Your task to perform on an android device: turn on priority inbox in the gmail app Image 0: 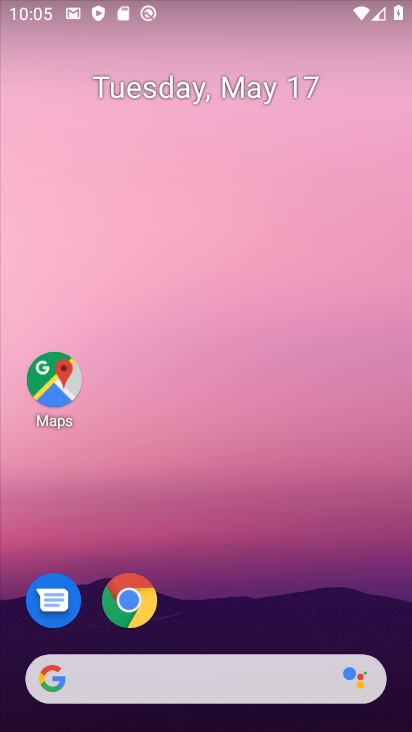
Step 0: drag from (348, 609) to (347, 246)
Your task to perform on an android device: turn on priority inbox in the gmail app Image 1: 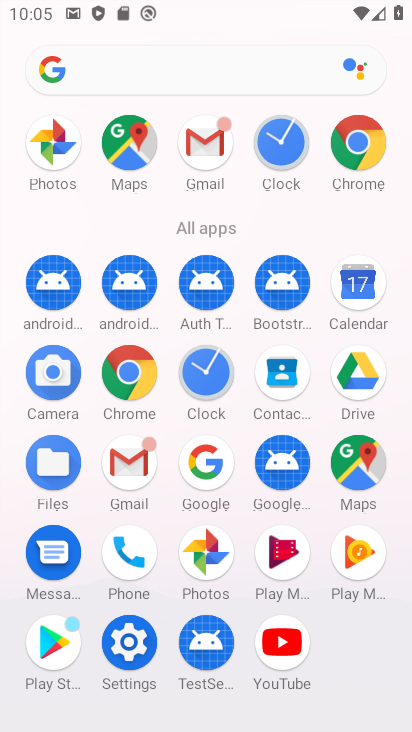
Step 1: click (139, 463)
Your task to perform on an android device: turn on priority inbox in the gmail app Image 2: 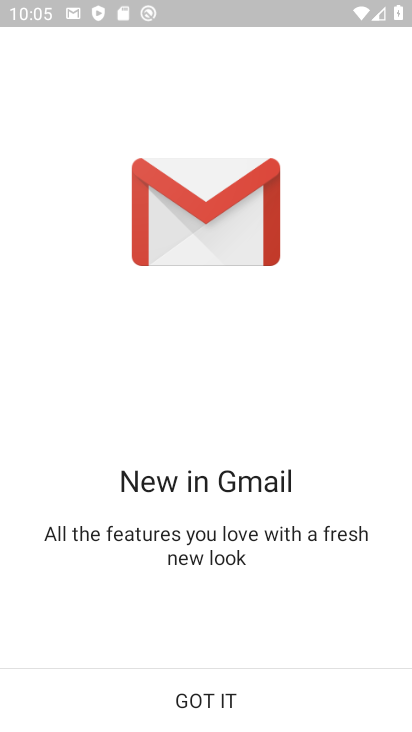
Step 2: click (213, 711)
Your task to perform on an android device: turn on priority inbox in the gmail app Image 3: 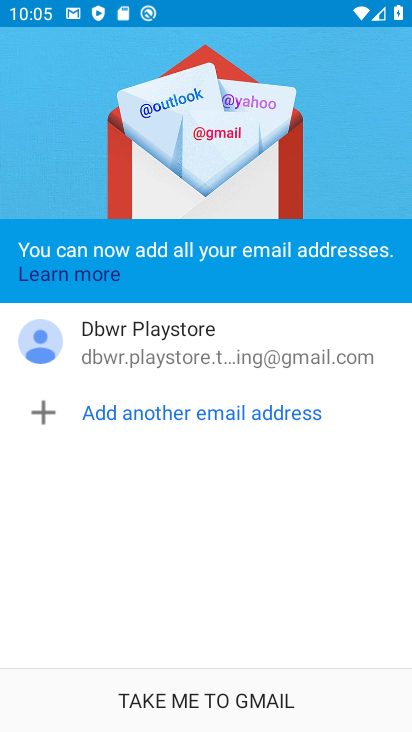
Step 3: click (213, 711)
Your task to perform on an android device: turn on priority inbox in the gmail app Image 4: 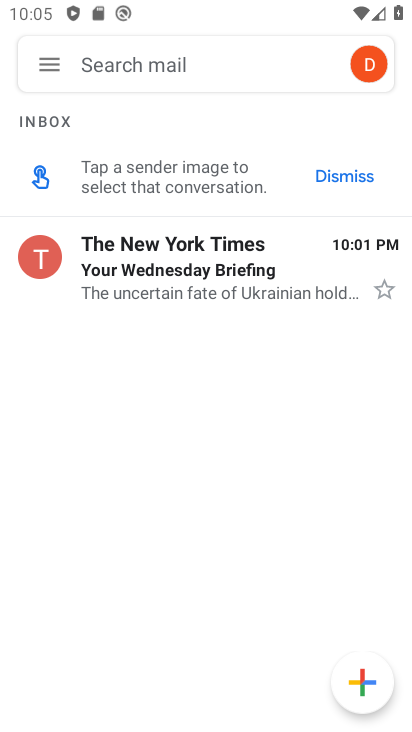
Step 4: click (48, 67)
Your task to perform on an android device: turn on priority inbox in the gmail app Image 5: 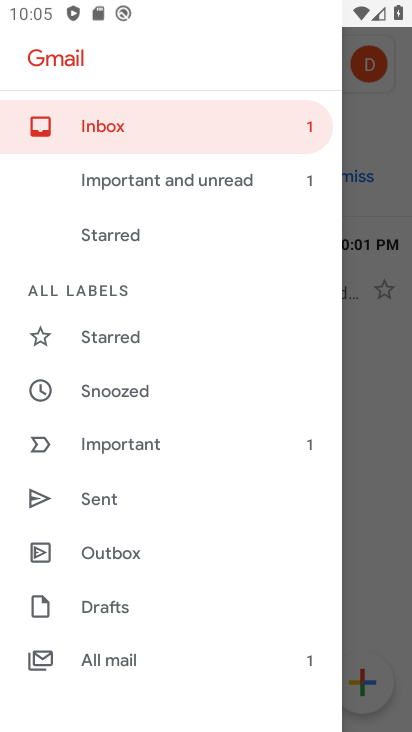
Step 5: drag from (239, 573) to (225, 429)
Your task to perform on an android device: turn on priority inbox in the gmail app Image 6: 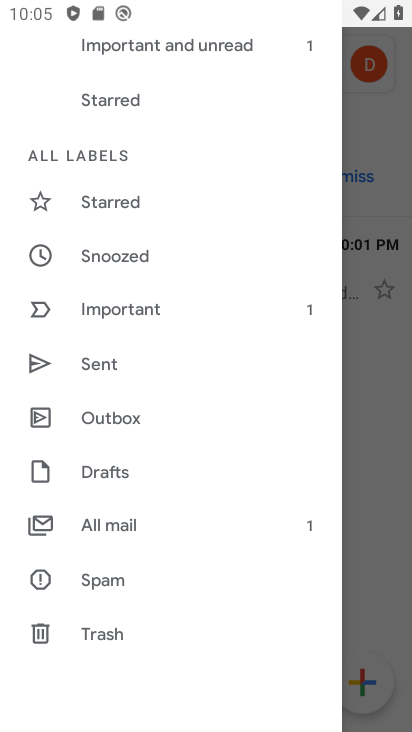
Step 6: drag from (223, 577) to (221, 420)
Your task to perform on an android device: turn on priority inbox in the gmail app Image 7: 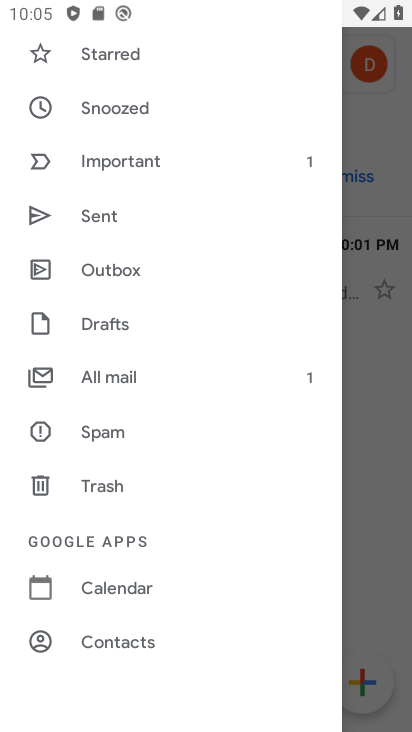
Step 7: drag from (233, 595) to (236, 490)
Your task to perform on an android device: turn on priority inbox in the gmail app Image 8: 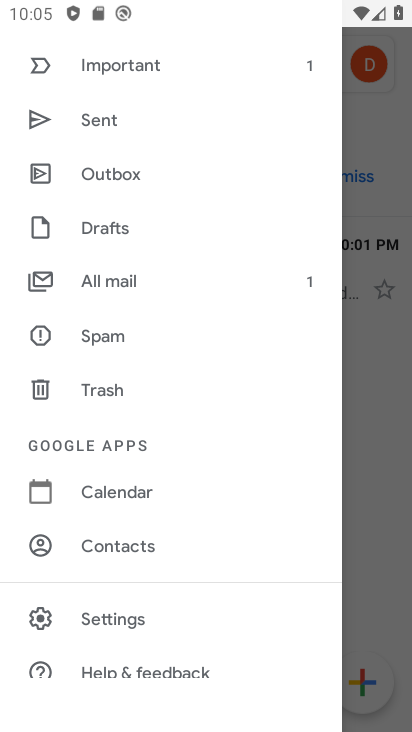
Step 8: drag from (230, 625) to (231, 508)
Your task to perform on an android device: turn on priority inbox in the gmail app Image 9: 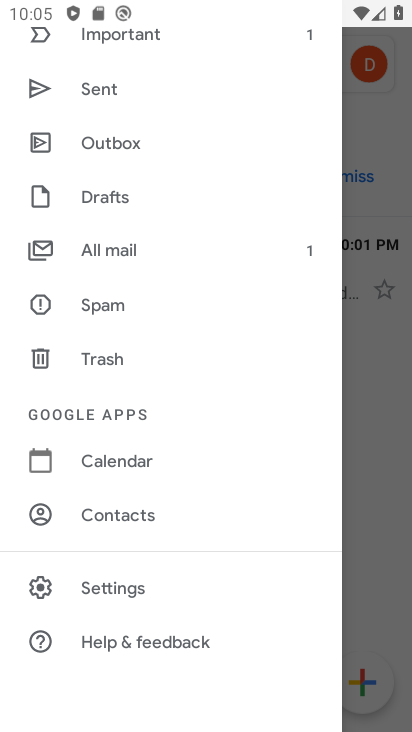
Step 9: click (192, 582)
Your task to perform on an android device: turn on priority inbox in the gmail app Image 10: 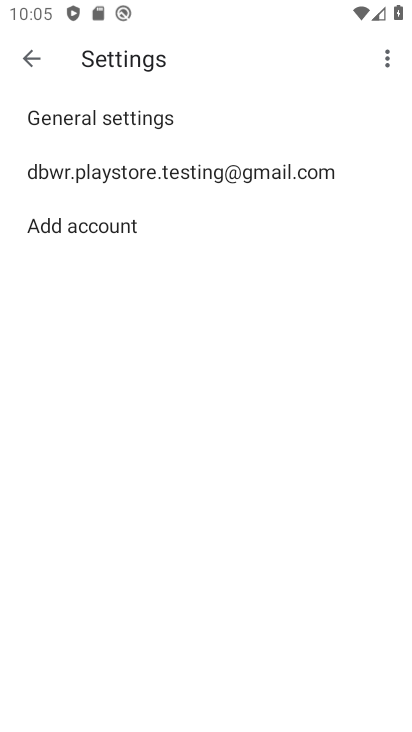
Step 10: click (266, 188)
Your task to perform on an android device: turn on priority inbox in the gmail app Image 11: 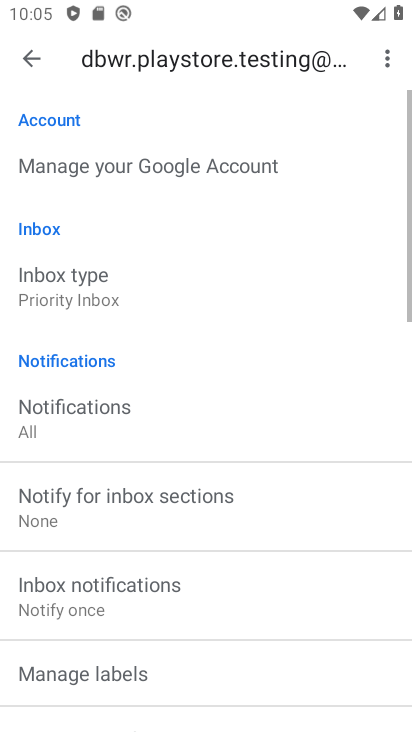
Step 11: drag from (299, 607) to (308, 505)
Your task to perform on an android device: turn on priority inbox in the gmail app Image 12: 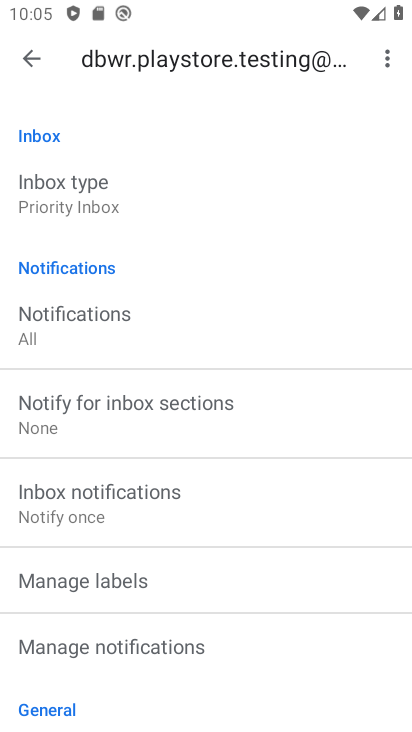
Step 12: drag from (308, 639) to (307, 546)
Your task to perform on an android device: turn on priority inbox in the gmail app Image 13: 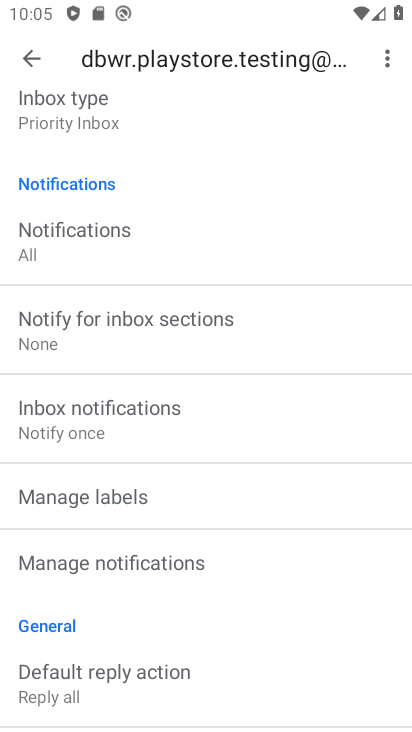
Step 13: drag from (304, 638) to (302, 565)
Your task to perform on an android device: turn on priority inbox in the gmail app Image 14: 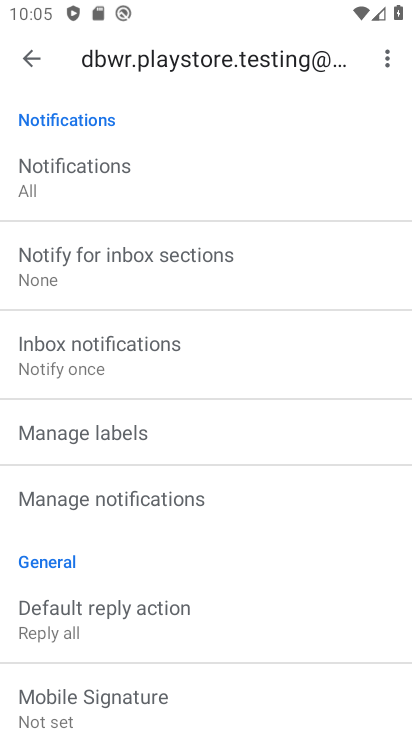
Step 14: drag from (293, 637) to (292, 592)
Your task to perform on an android device: turn on priority inbox in the gmail app Image 15: 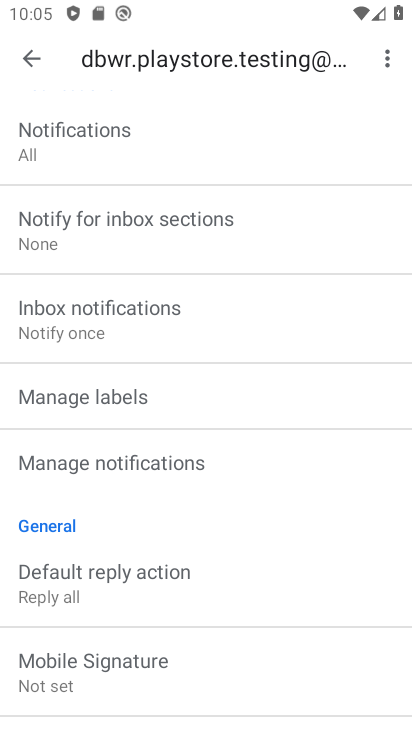
Step 15: drag from (288, 612) to (283, 544)
Your task to perform on an android device: turn on priority inbox in the gmail app Image 16: 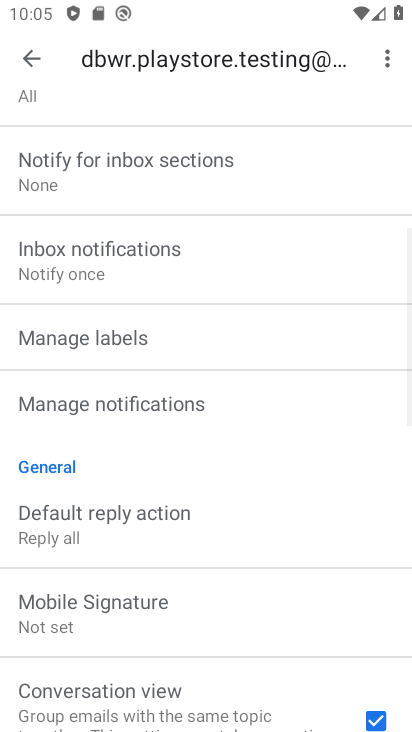
Step 16: drag from (290, 625) to (291, 554)
Your task to perform on an android device: turn on priority inbox in the gmail app Image 17: 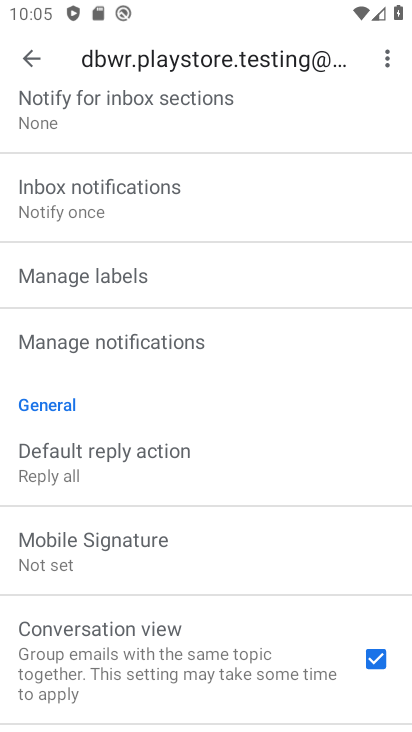
Step 17: drag from (289, 596) to (286, 541)
Your task to perform on an android device: turn on priority inbox in the gmail app Image 18: 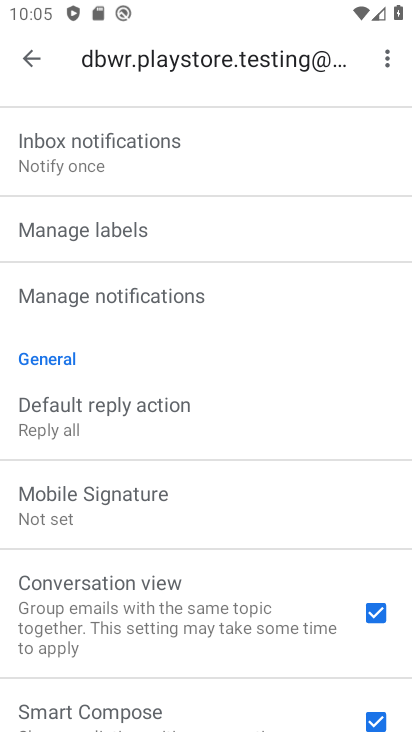
Step 18: click (284, 559)
Your task to perform on an android device: turn on priority inbox in the gmail app Image 19: 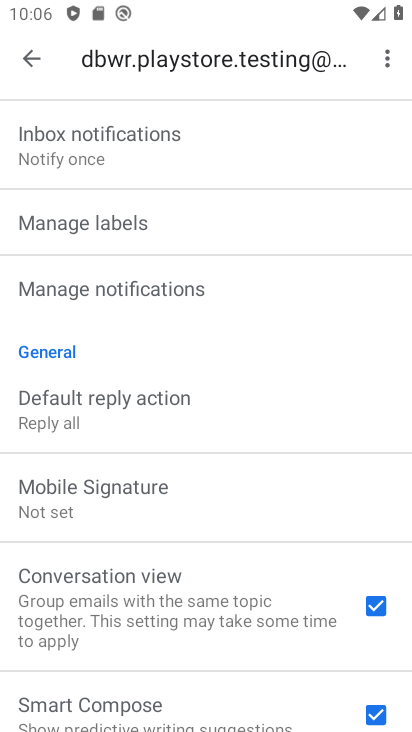
Step 19: task complete